Your task to perform on an android device: Open notification settings Image 0: 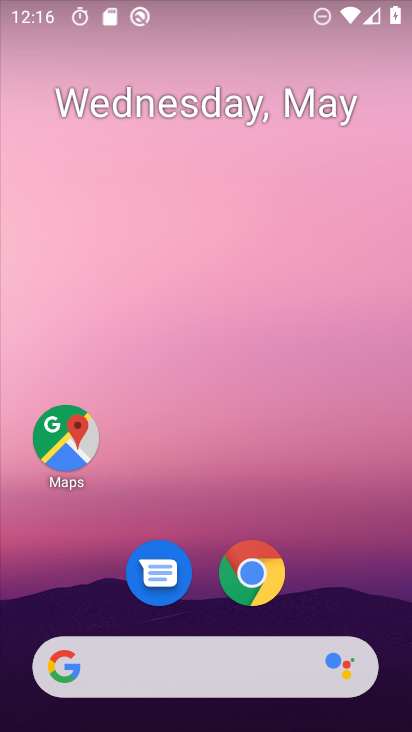
Step 0: drag from (336, 572) to (233, 61)
Your task to perform on an android device: Open notification settings Image 1: 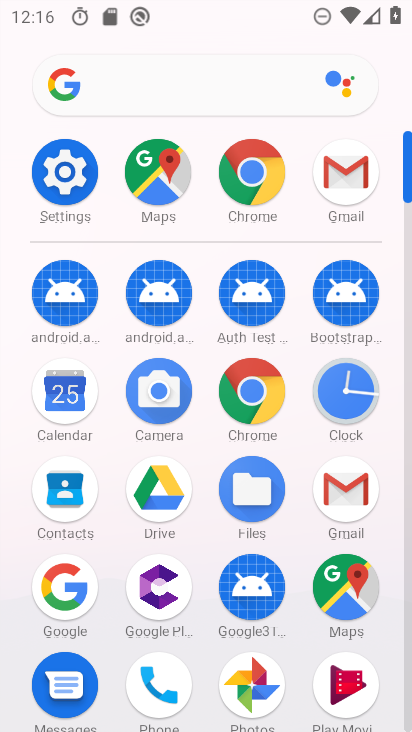
Step 1: drag from (29, 585) to (19, 260)
Your task to perform on an android device: Open notification settings Image 2: 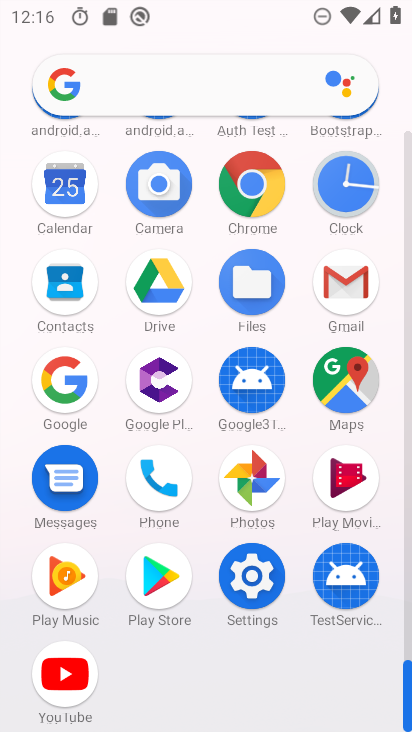
Step 2: click (248, 572)
Your task to perform on an android device: Open notification settings Image 3: 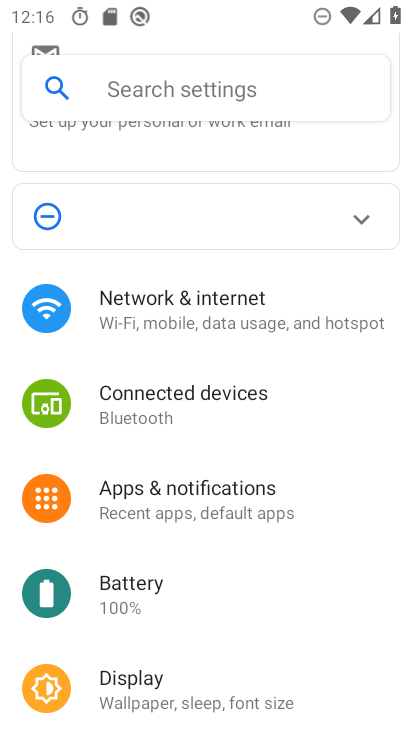
Step 3: drag from (296, 613) to (318, 203)
Your task to perform on an android device: Open notification settings Image 4: 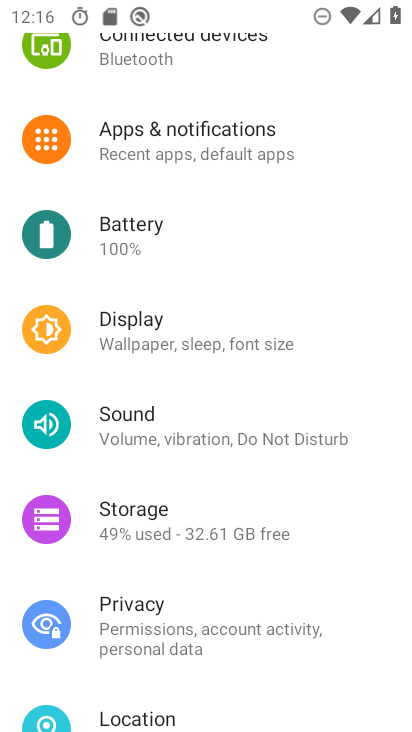
Step 4: drag from (312, 222) to (261, 519)
Your task to perform on an android device: Open notification settings Image 5: 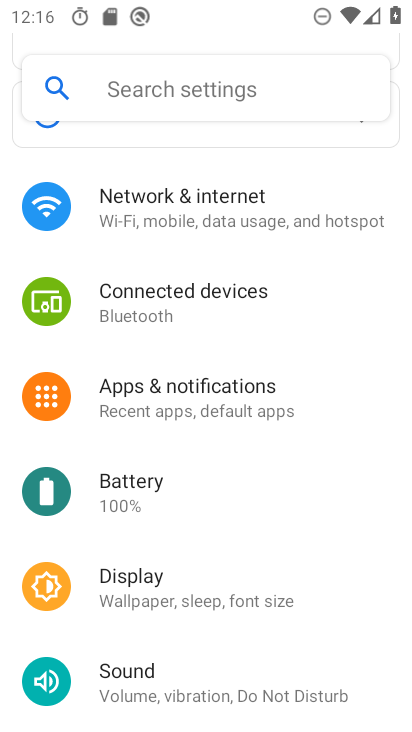
Step 5: click (196, 384)
Your task to perform on an android device: Open notification settings Image 6: 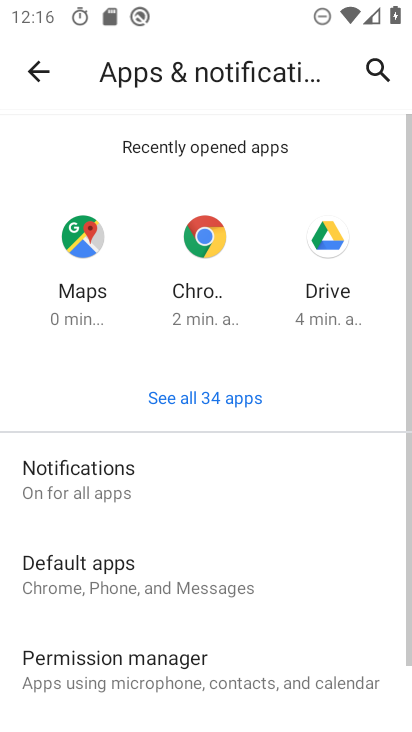
Step 6: click (147, 477)
Your task to perform on an android device: Open notification settings Image 7: 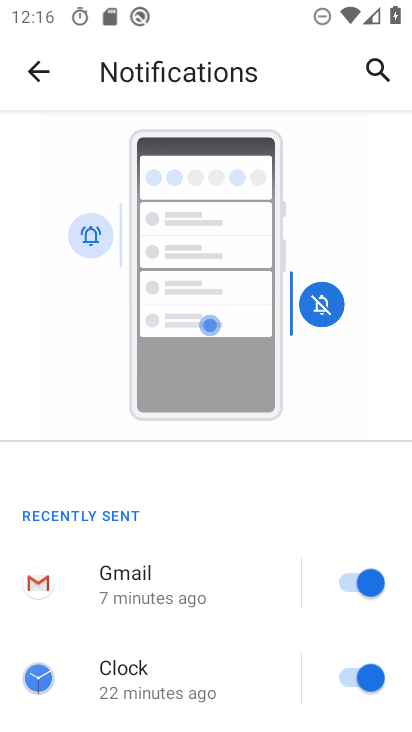
Step 7: drag from (168, 618) to (227, 200)
Your task to perform on an android device: Open notification settings Image 8: 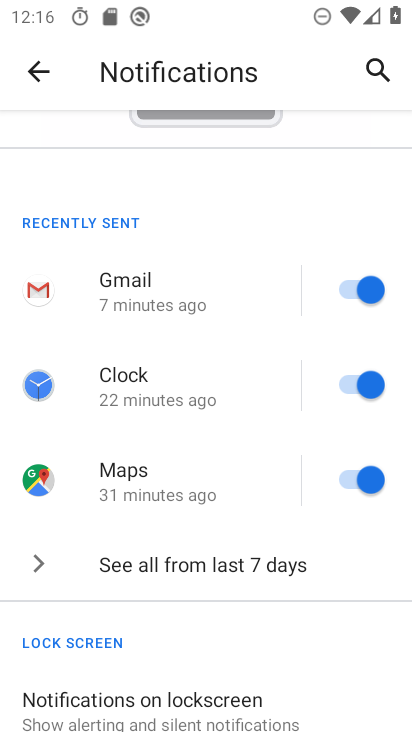
Step 8: drag from (210, 614) to (261, 203)
Your task to perform on an android device: Open notification settings Image 9: 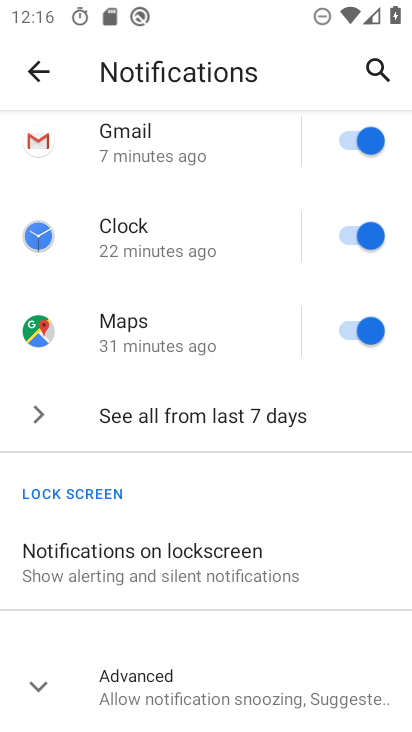
Step 9: click (42, 683)
Your task to perform on an android device: Open notification settings Image 10: 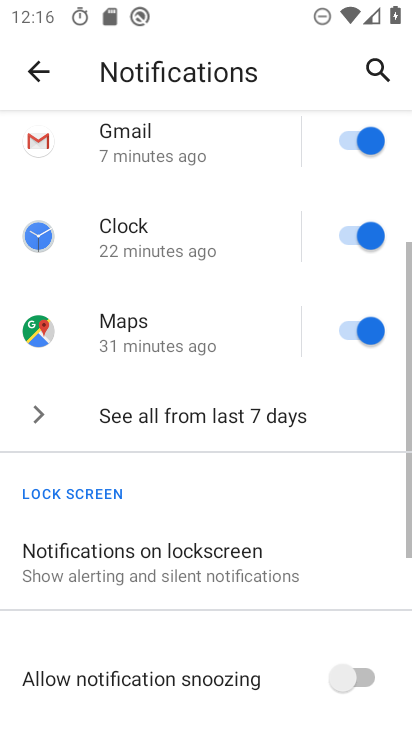
Step 10: task complete